Your task to perform on an android device: Open battery settings Image 0: 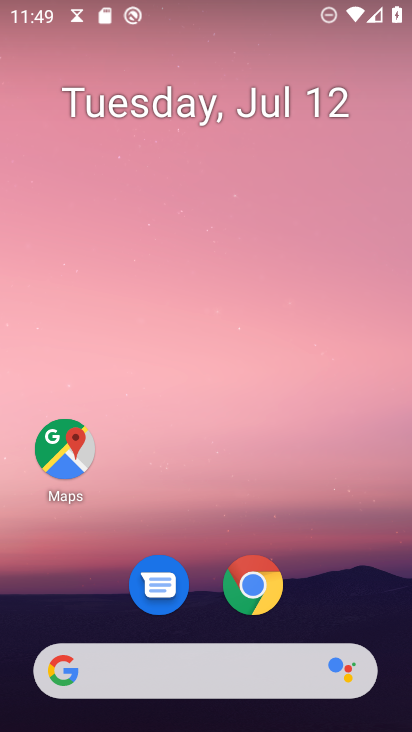
Step 0: drag from (212, 674) to (306, 107)
Your task to perform on an android device: Open battery settings Image 1: 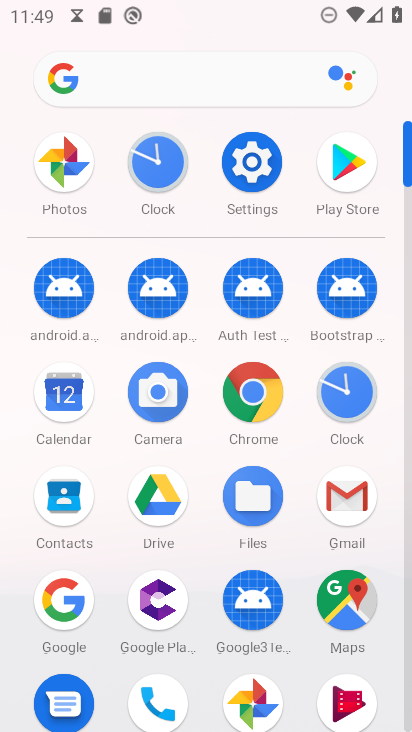
Step 1: click (256, 159)
Your task to perform on an android device: Open battery settings Image 2: 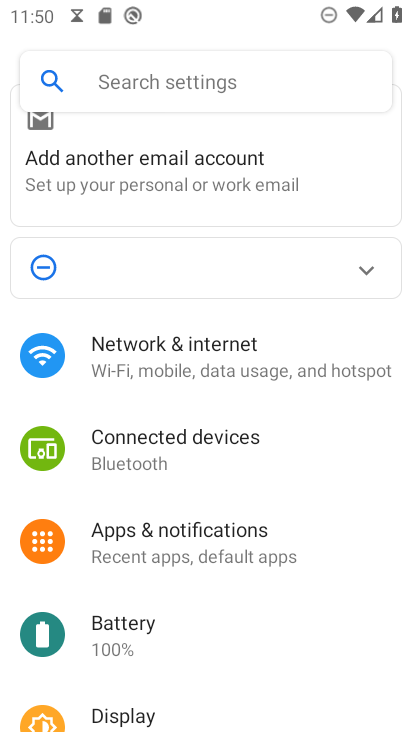
Step 2: click (137, 618)
Your task to perform on an android device: Open battery settings Image 3: 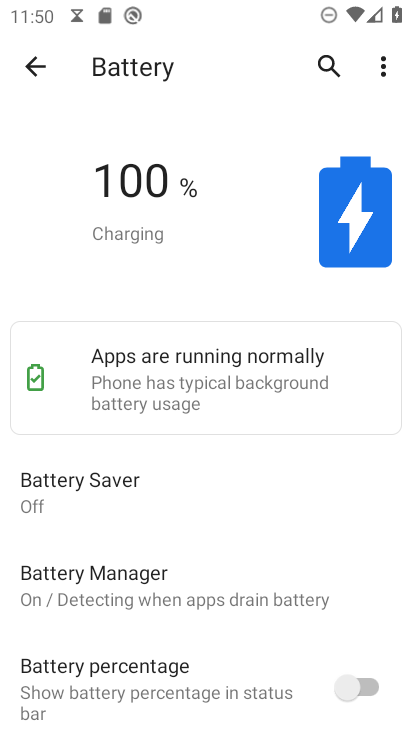
Step 3: task complete